Your task to perform on an android device: find which apps use the phone's location Image 0: 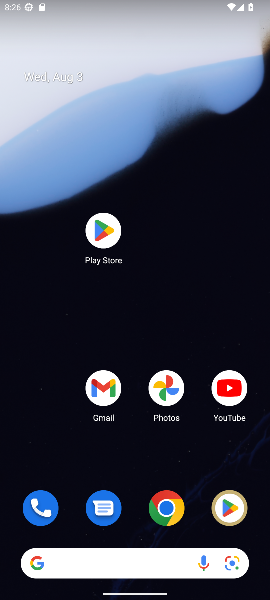
Step 0: drag from (140, 543) to (68, 127)
Your task to perform on an android device: find which apps use the phone's location Image 1: 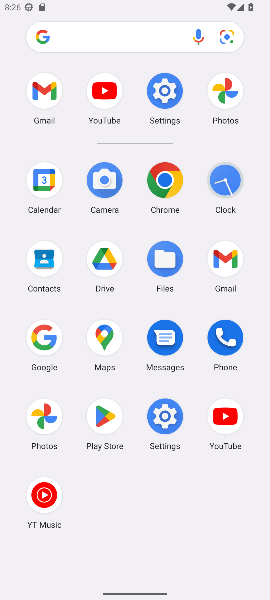
Step 1: click (169, 422)
Your task to perform on an android device: find which apps use the phone's location Image 2: 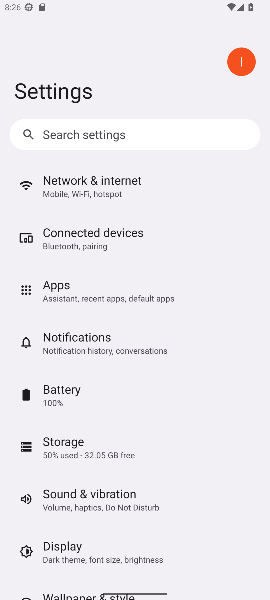
Step 2: drag from (96, 448) to (45, 165)
Your task to perform on an android device: find which apps use the phone's location Image 3: 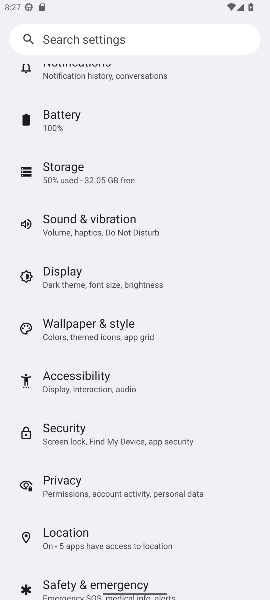
Step 3: click (95, 531)
Your task to perform on an android device: find which apps use the phone's location Image 4: 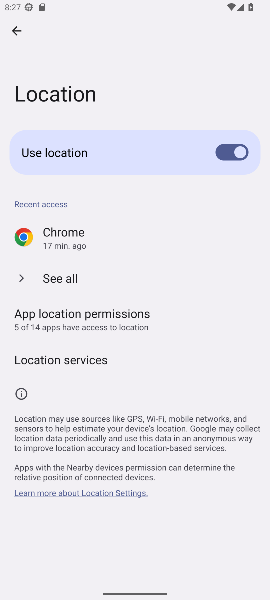
Step 4: click (75, 317)
Your task to perform on an android device: find which apps use the phone's location Image 5: 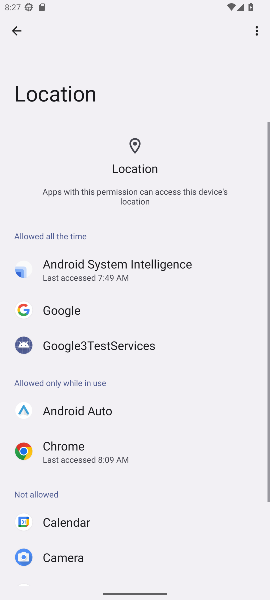
Step 5: task complete